Your task to perform on an android device: Open Amazon Image 0: 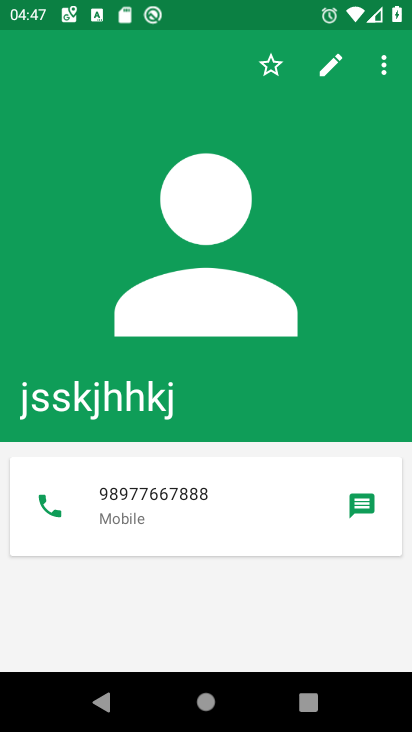
Step 0: press home button
Your task to perform on an android device: Open Amazon Image 1: 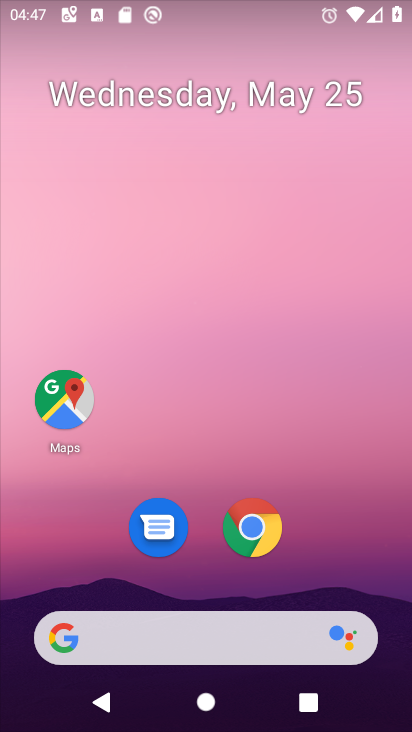
Step 1: drag from (195, 498) to (227, 86)
Your task to perform on an android device: Open Amazon Image 2: 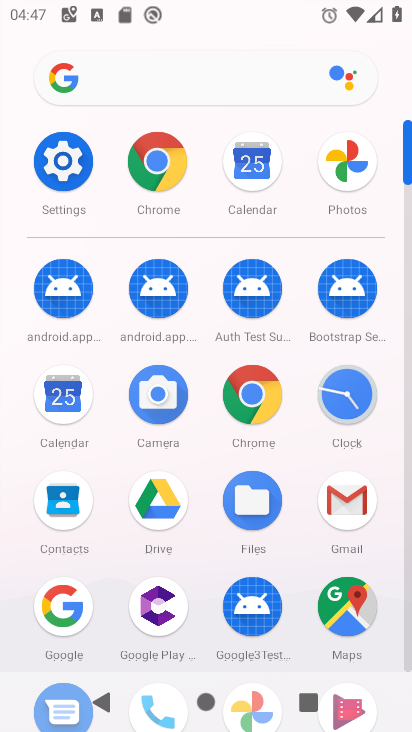
Step 2: click (163, 174)
Your task to perform on an android device: Open Amazon Image 3: 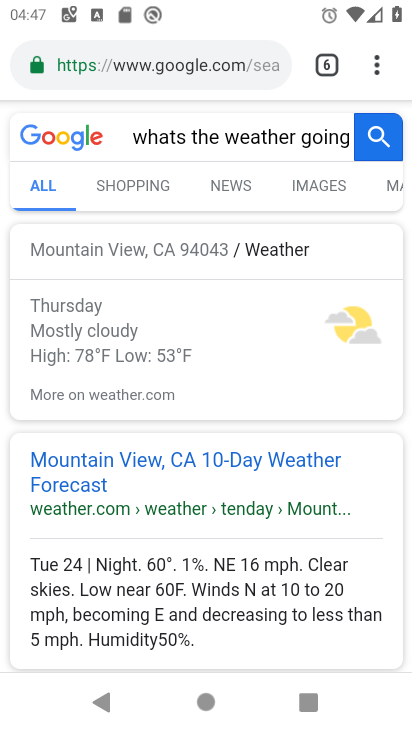
Step 3: click (240, 72)
Your task to perform on an android device: Open Amazon Image 4: 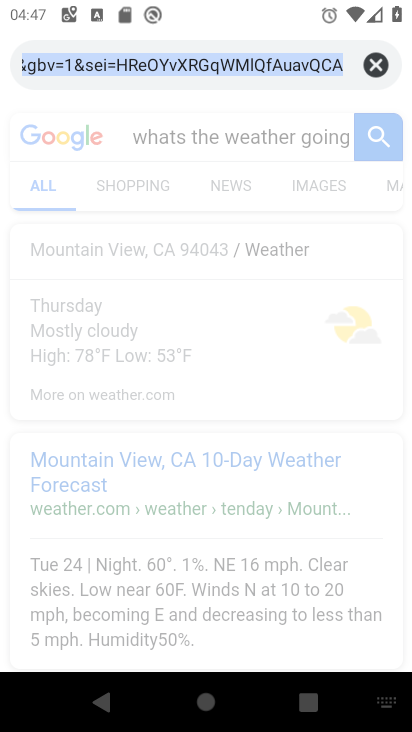
Step 4: click (367, 67)
Your task to perform on an android device: Open Amazon Image 5: 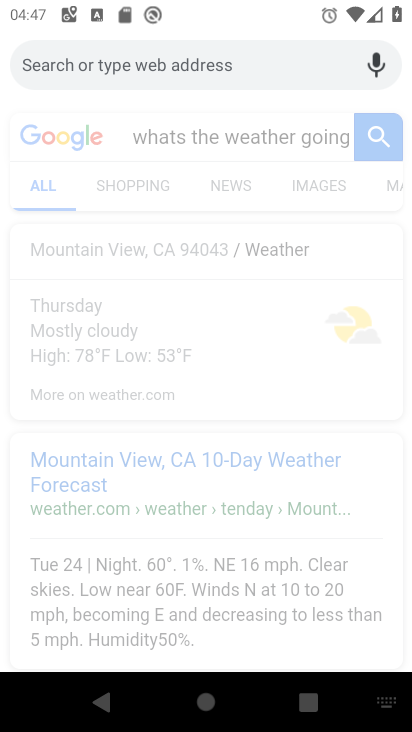
Step 5: type "amazon"
Your task to perform on an android device: Open Amazon Image 6: 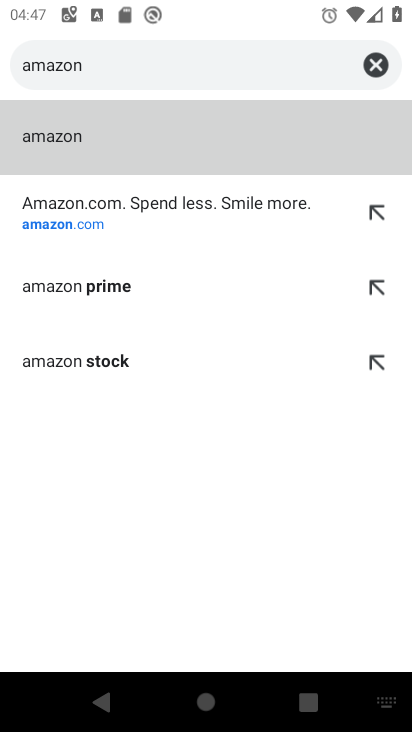
Step 6: click (103, 156)
Your task to perform on an android device: Open Amazon Image 7: 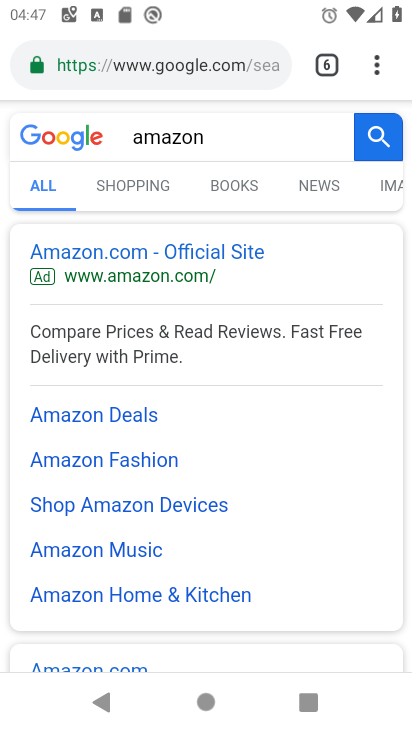
Step 7: click (216, 247)
Your task to perform on an android device: Open Amazon Image 8: 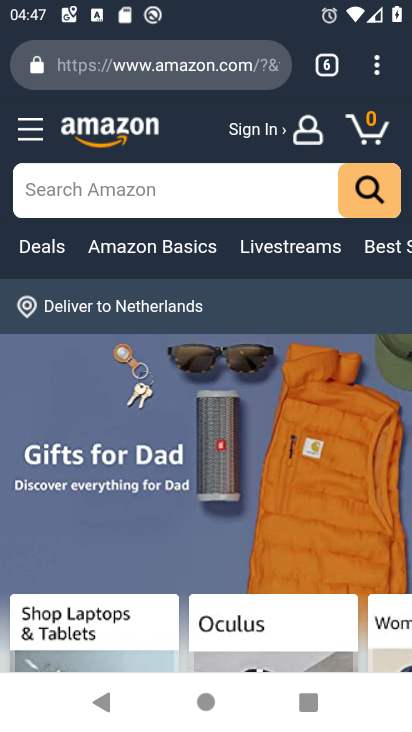
Step 8: task complete